Your task to perform on an android device: turn on bluetooth scan Image 0: 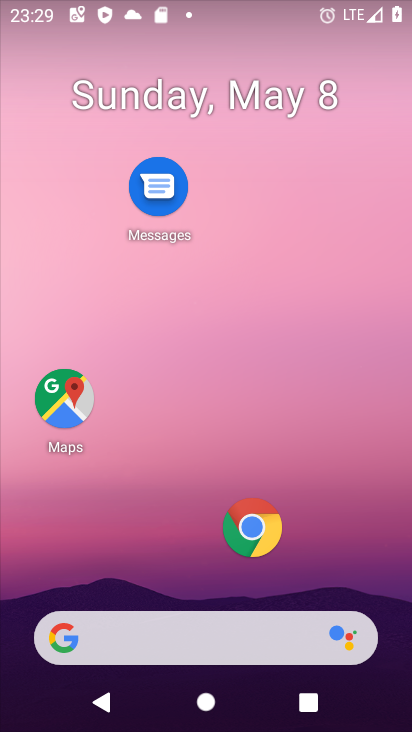
Step 0: drag from (180, 533) to (206, 9)
Your task to perform on an android device: turn on bluetooth scan Image 1: 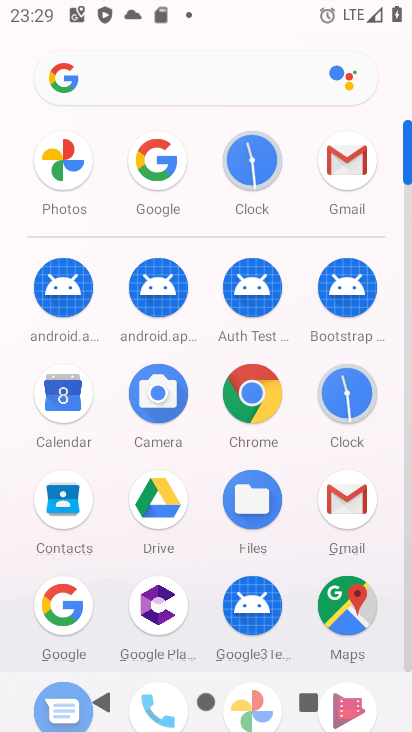
Step 1: drag from (205, 586) to (211, 89)
Your task to perform on an android device: turn on bluetooth scan Image 2: 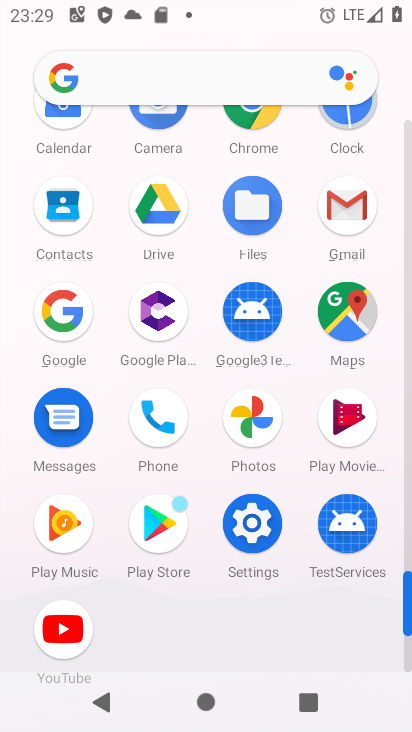
Step 2: click (247, 530)
Your task to perform on an android device: turn on bluetooth scan Image 3: 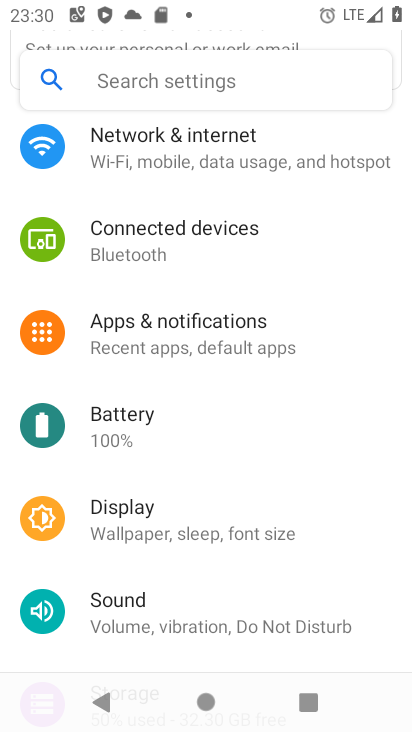
Step 3: drag from (176, 556) to (200, 86)
Your task to perform on an android device: turn on bluetooth scan Image 4: 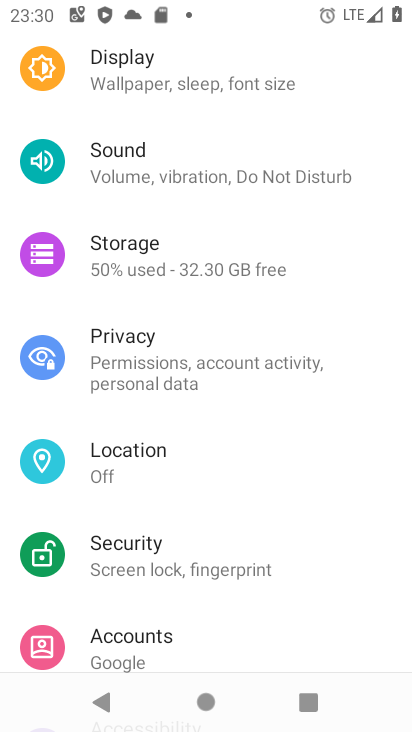
Step 4: click (135, 461)
Your task to perform on an android device: turn on bluetooth scan Image 5: 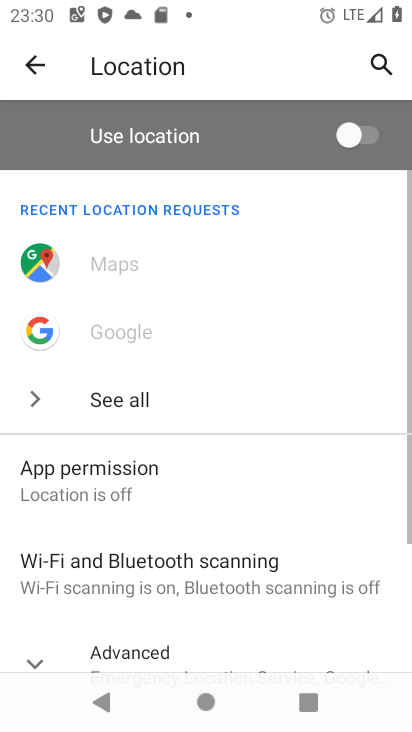
Step 5: drag from (288, 591) to (287, 193)
Your task to perform on an android device: turn on bluetooth scan Image 6: 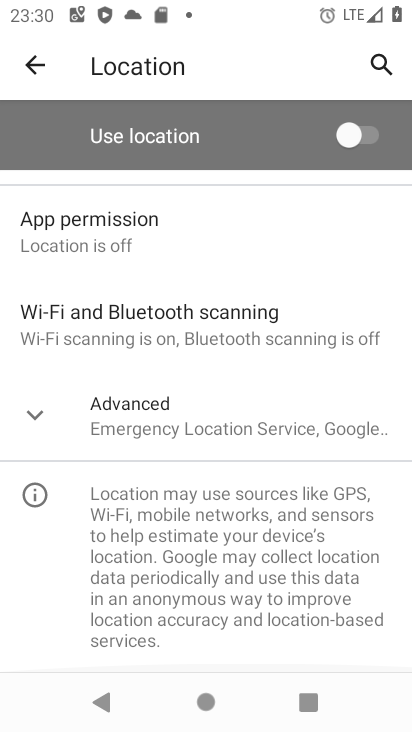
Step 6: click (225, 327)
Your task to perform on an android device: turn on bluetooth scan Image 7: 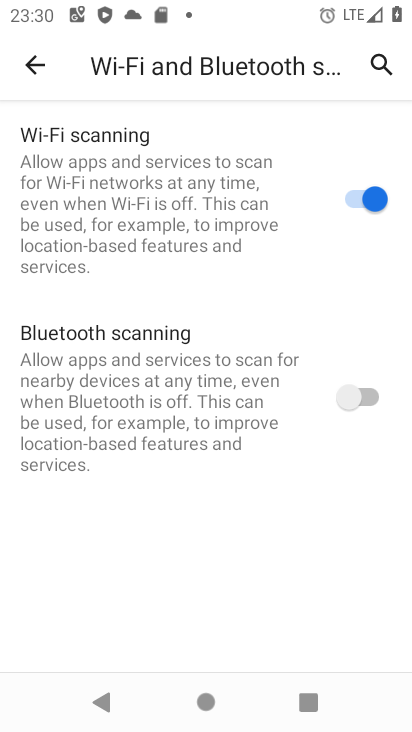
Step 7: click (367, 399)
Your task to perform on an android device: turn on bluetooth scan Image 8: 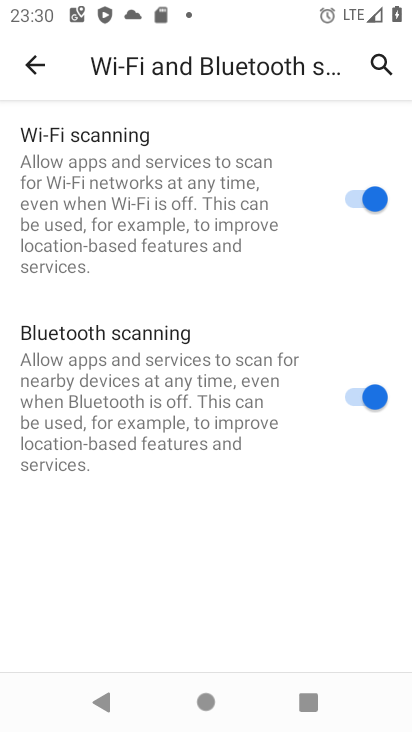
Step 8: task complete